Your task to perform on an android device: Open sound settings Image 0: 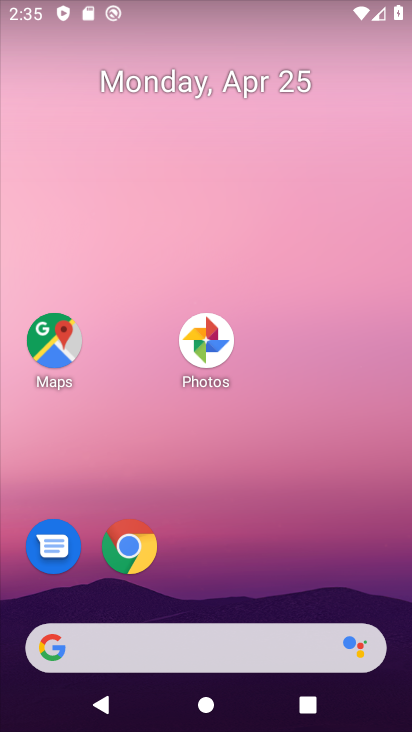
Step 0: drag from (258, 462) to (255, 189)
Your task to perform on an android device: Open sound settings Image 1: 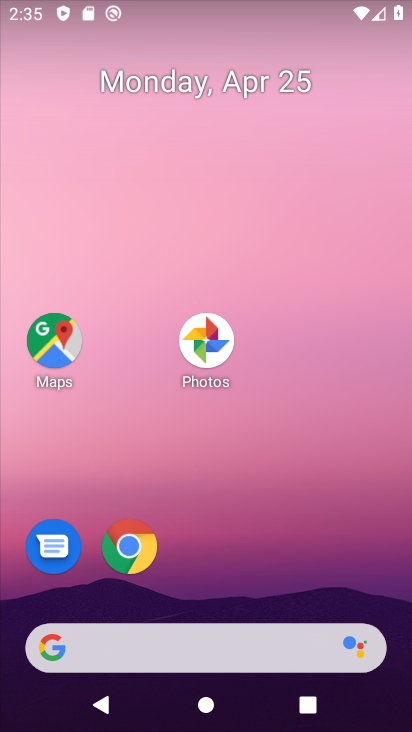
Step 1: drag from (232, 456) to (256, 165)
Your task to perform on an android device: Open sound settings Image 2: 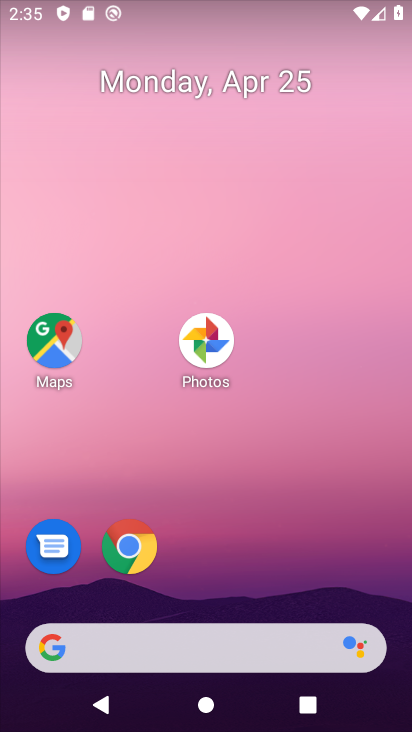
Step 2: drag from (215, 585) to (289, 123)
Your task to perform on an android device: Open sound settings Image 3: 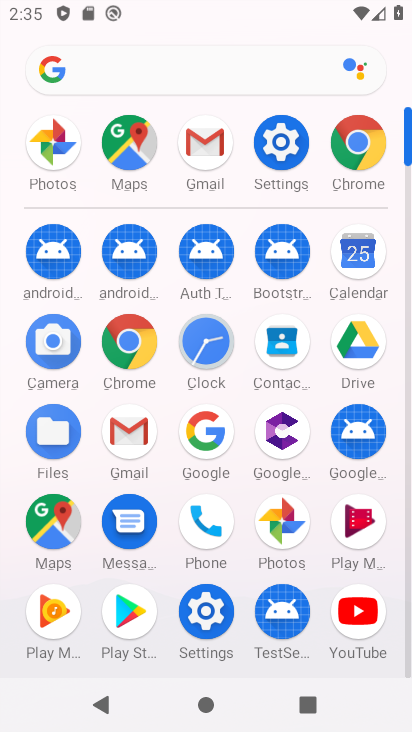
Step 3: click (285, 141)
Your task to perform on an android device: Open sound settings Image 4: 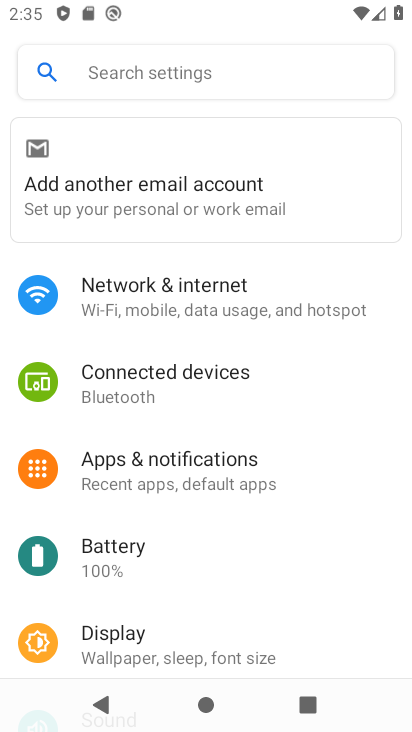
Step 4: drag from (208, 625) to (298, 178)
Your task to perform on an android device: Open sound settings Image 5: 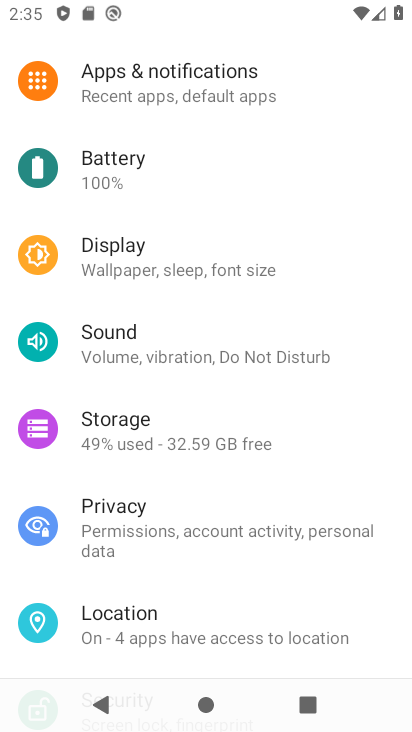
Step 5: click (188, 334)
Your task to perform on an android device: Open sound settings Image 6: 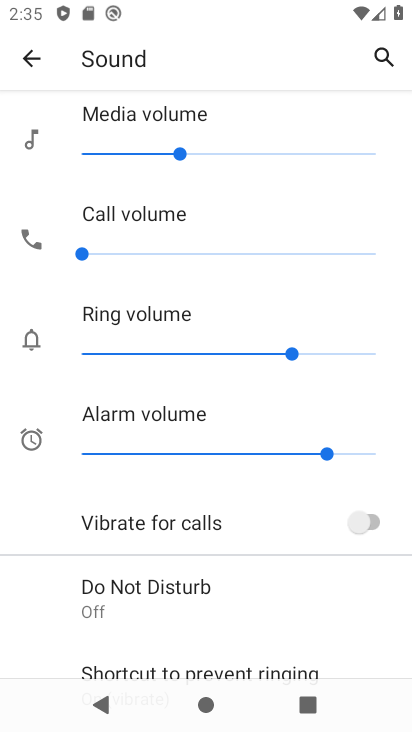
Step 6: task complete